Your task to perform on an android device: turn on the 24-hour format for clock Image 0: 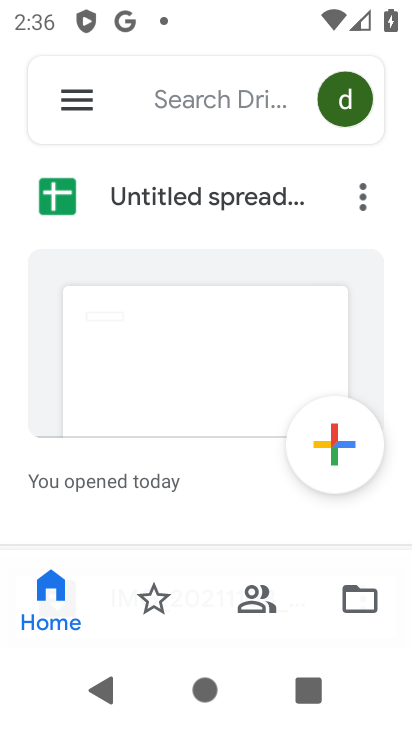
Step 0: press home button
Your task to perform on an android device: turn on the 24-hour format for clock Image 1: 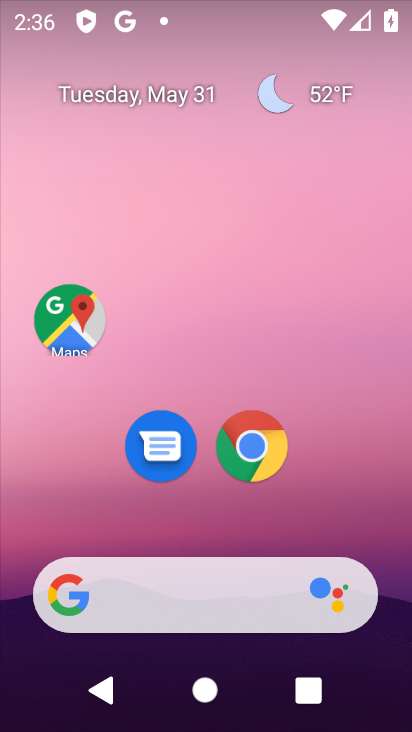
Step 1: drag from (310, 510) to (233, 66)
Your task to perform on an android device: turn on the 24-hour format for clock Image 2: 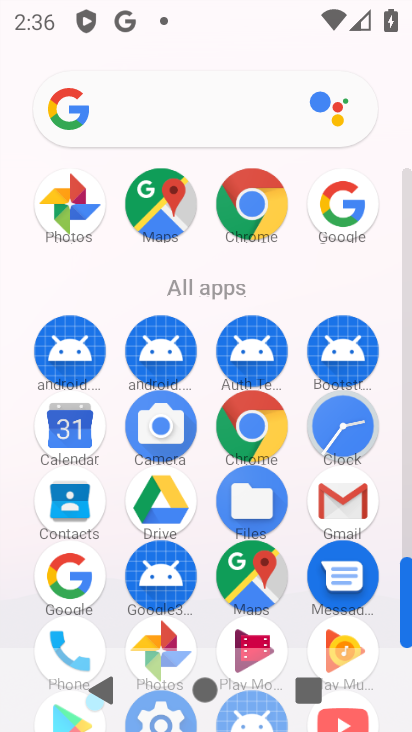
Step 2: drag from (294, 513) to (276, 257)
Your task to perform on an android device: turn on the 24-hour format for clock Image 3: 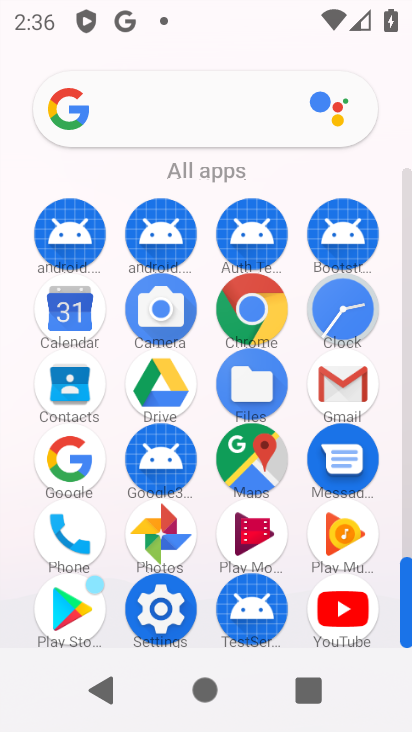
Step 3: click (344, 308)
Your task to perform on an android device: turn on the 24-hour format for clock Image 4: 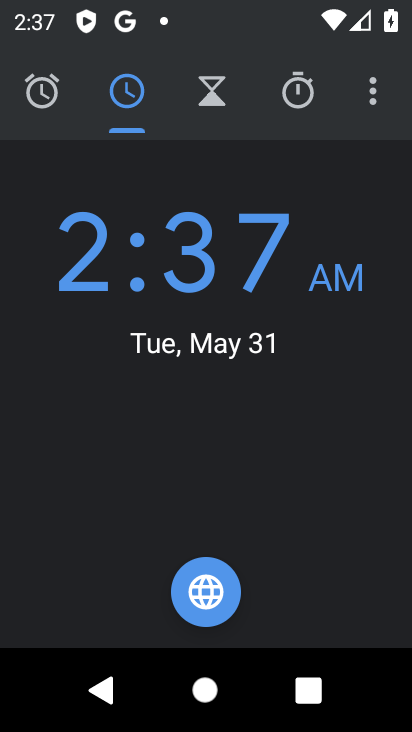
Step 4: click (376, 95)
Your task to perform on an android device: turn on the 24-hour format for clock Image 5: 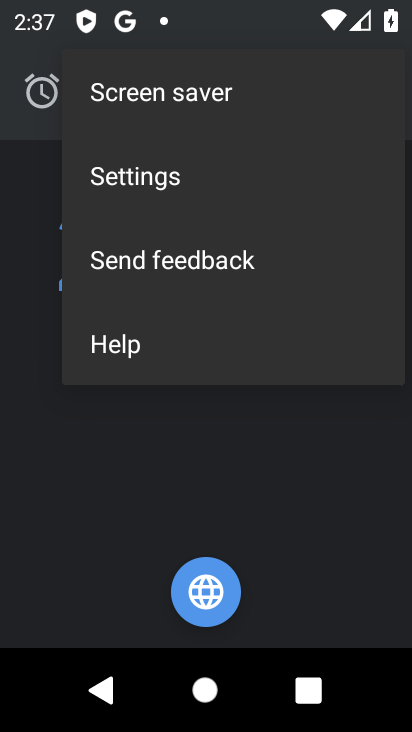
Step 5: click (142, 179)
Your task to perform on an android device: turn on the 24-hour format for clock Image 6: 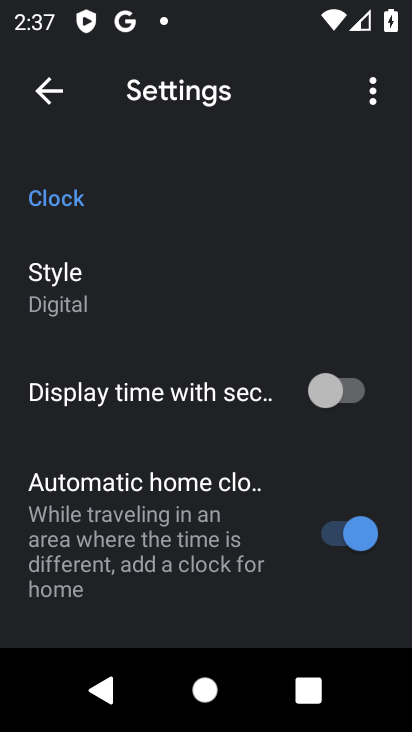
Step 6: drag from (162, 413) to (231, 314)
Your task to perform on an android device: turn on the 24-hour format for clock Image 7: 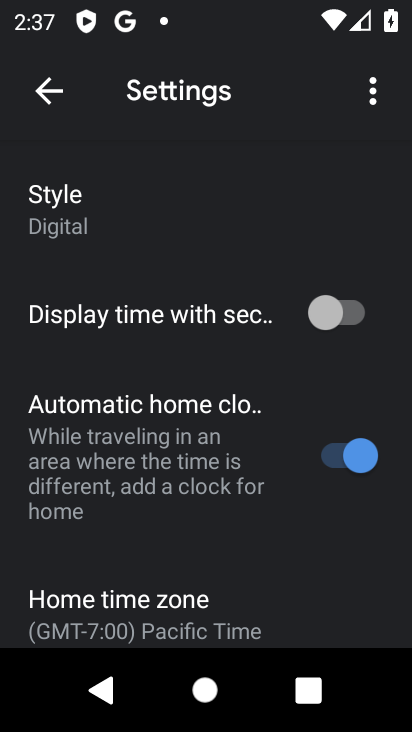
Step 7: drag from (164, 533) to (241, 405)
Your task to perform on an android device: turn on the 24-hour format for clock Image 8: 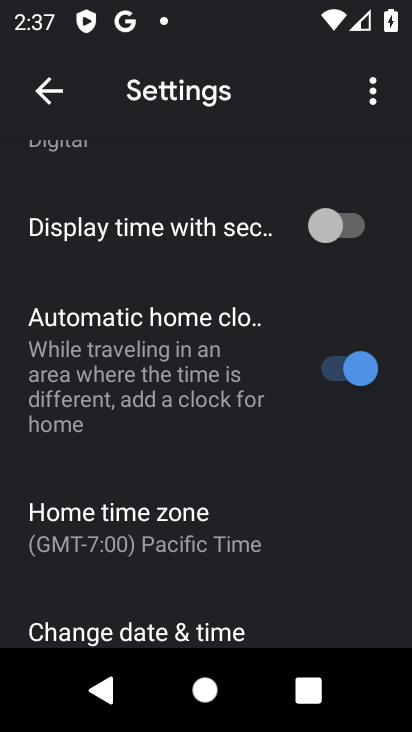
Step 8: drag from (164, 567) to (235, 465)
Your task to perform on an android device: turn on the 24-hour format for clock Image 9: 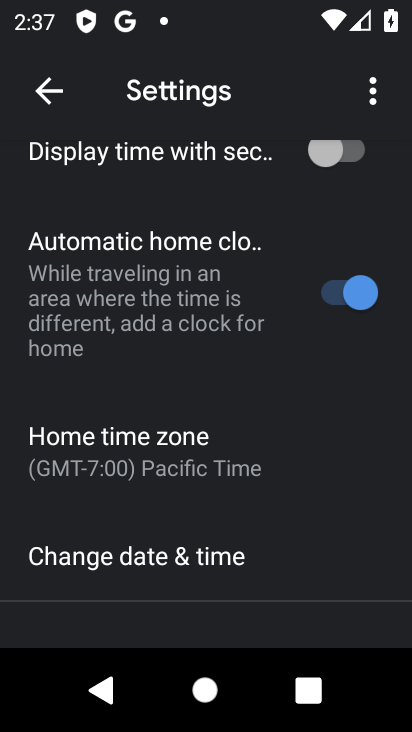
Step 9: drag from (186, 524) to (261, 407)
Your task to perform on an android device: turn on the 24-hour format for clock Image 10: 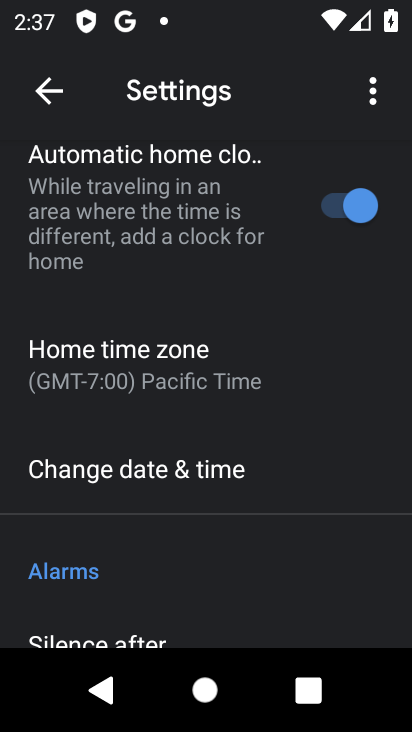
Step 10: click (219, 465)
Your task to perform on an android device: turn on the 24-hour format for clock Image 11: 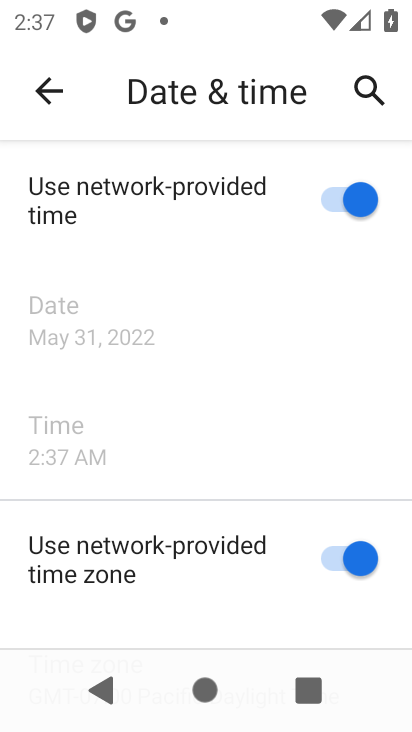
Step 11: drag from (224, 583) to (239, 464)
Your task to perform on an android device: turn on the 24-hour format for clock Image 12: 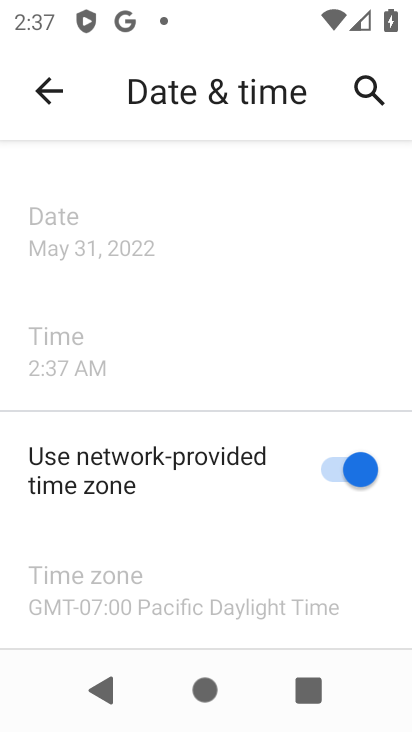
Step 12: drag from (223, 576) to (291, 361)
Your task to perform on an android device: turn on the 24-hour format for clock Image 13: 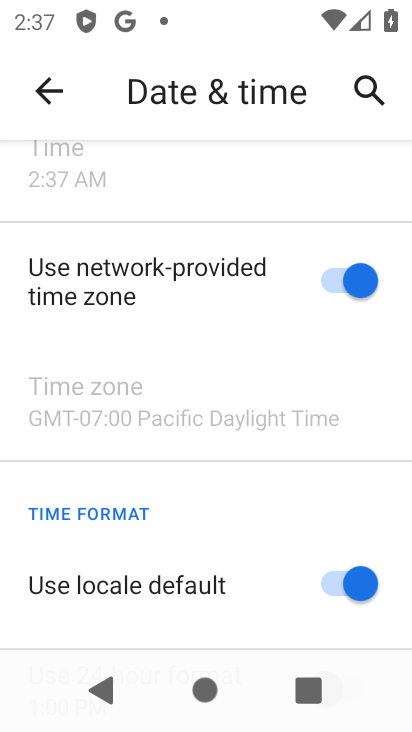
Step 13: drag from (204, 505) to (237, 377)
Your task to perform on an android device: turn on the 24-hour format for clock Image 14: 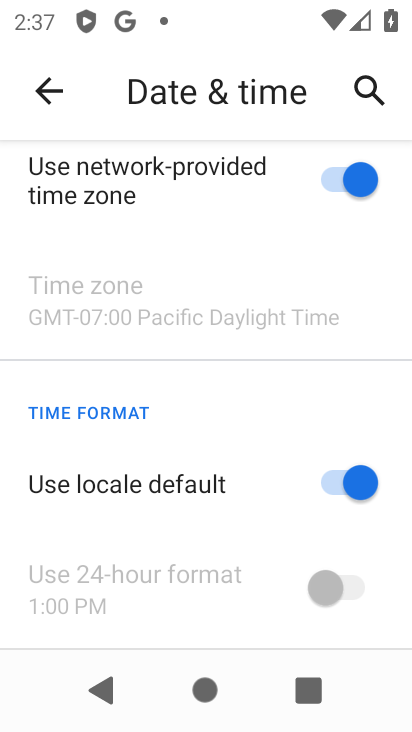
Step 14: click (334, 491)
Your task to perform on an android device: turn on the 24-hour format for clock Image 15: 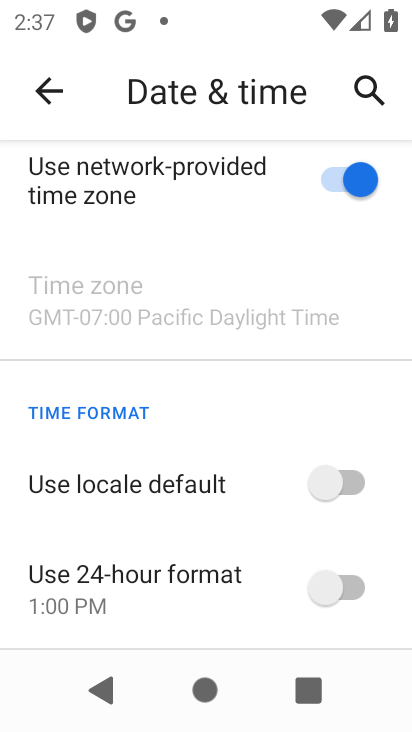
Step 15: click (340, 587)
Your task to perform on an android device: turn on the 24-hour format for clock Image 16: 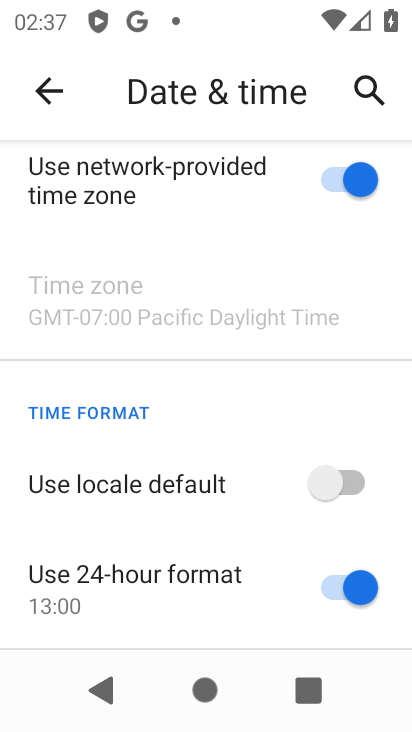
Step 16: task complete